Your task to perform on an android device: turn on priority inbox in the gmail app Image 0: 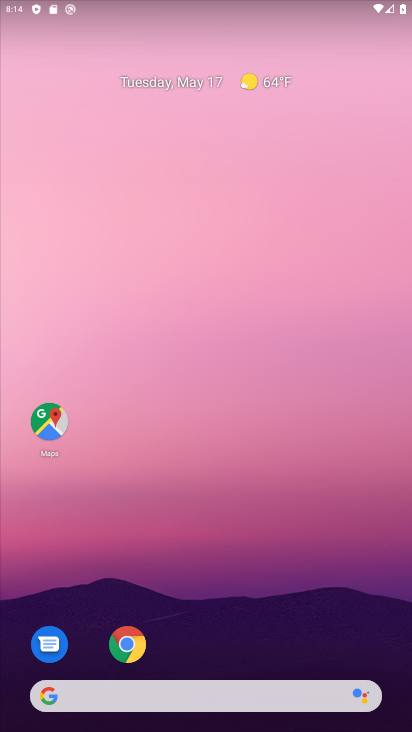
Step 0: drag from (227, 618) to (249, 74)
Your task to perform on an android device: turn on priority inbox in the gmail app Image 1: 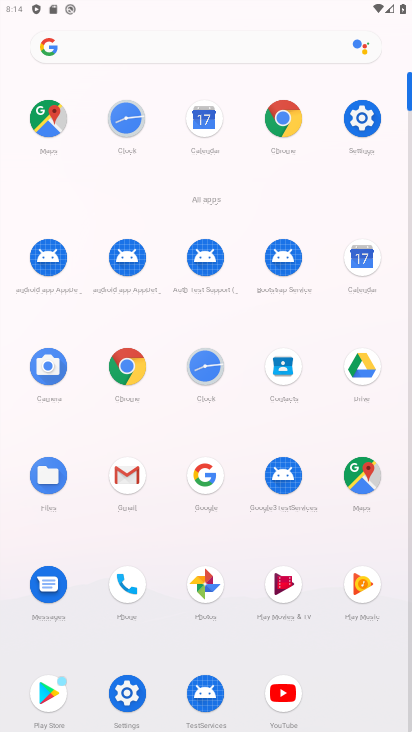
Step 1: click (130, 472)
Your task to perform on an android device: turn on priority inbox in the gmail app Image 2: 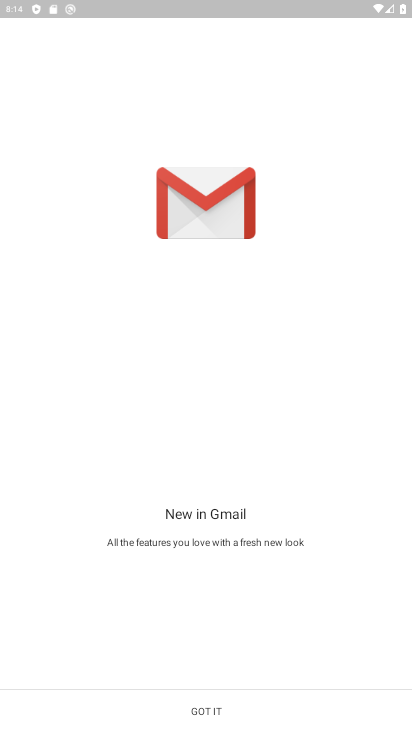
Step 2: click (215, 702)
Your task to perform on an android device: turn on priority inbox in the gmail app Image 3: 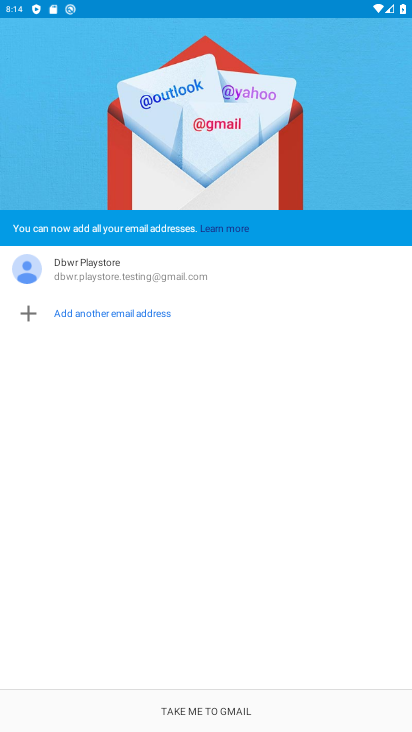
Step 3: click (215, 702)
Your task to perform on an android device: turn on priority inbox in the gmail app Image 4: 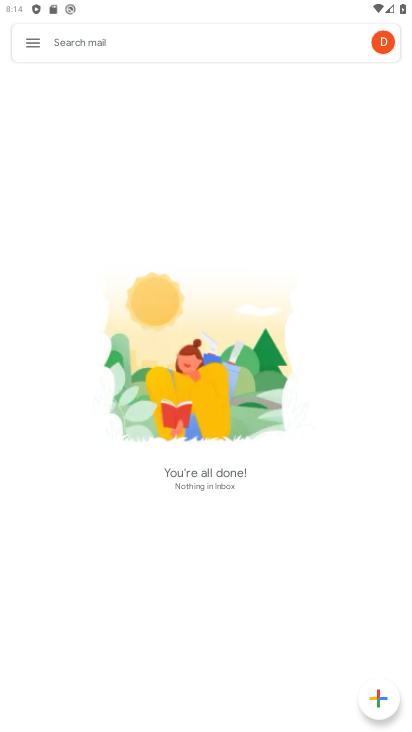
Step 4: click (29, 45)
Your task to perform on an android device: turn on priority inbox in the gmail app Image 5: 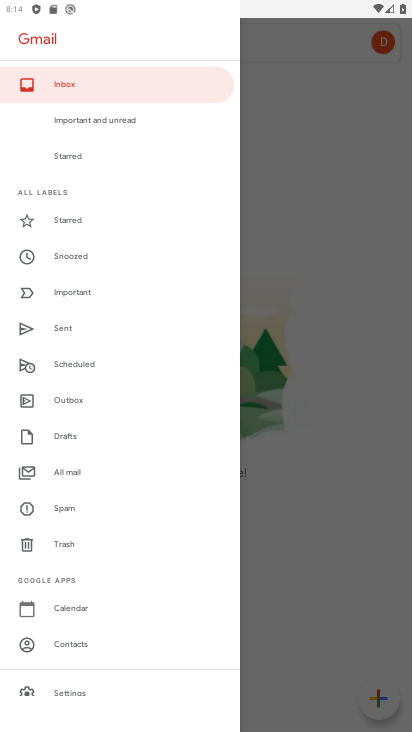
Step 5: click (58, 691)
Your task to perform on an android device: turn on priority inbox in the gmail app Image 6: 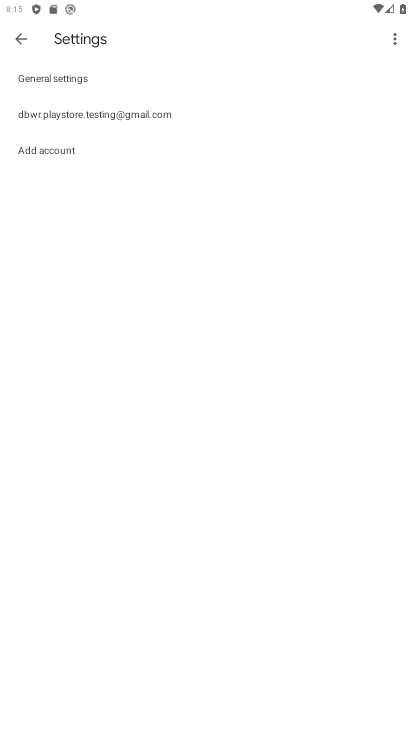
Step 6: click (140, 107)
Your task to perform on an android device: turn on priority inbox in the gmail app Image 7: 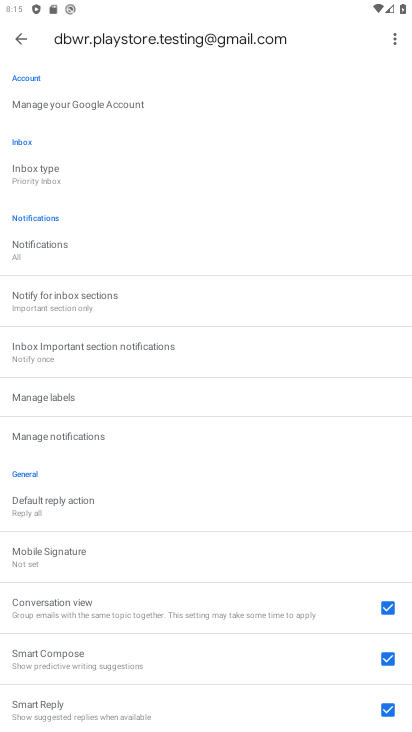
Step 7: click (31, 176)
Your task to perform on an android device: turn on priority inbox in the gmail app Image 8: 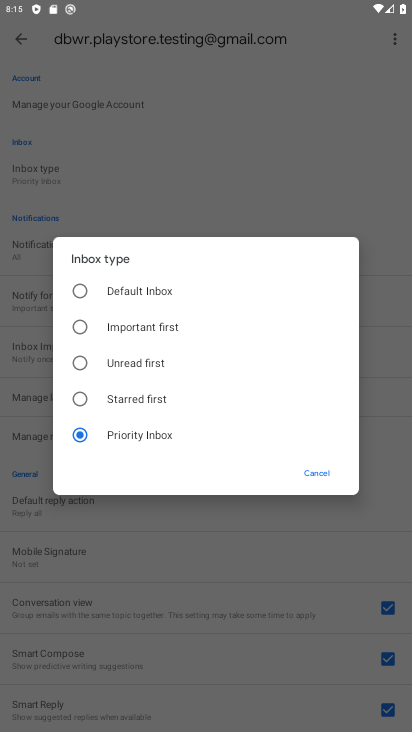
Step 8: click (143, 435)
Your task to perform on an android device: turn on priority inbox in the gmail app Image 9: 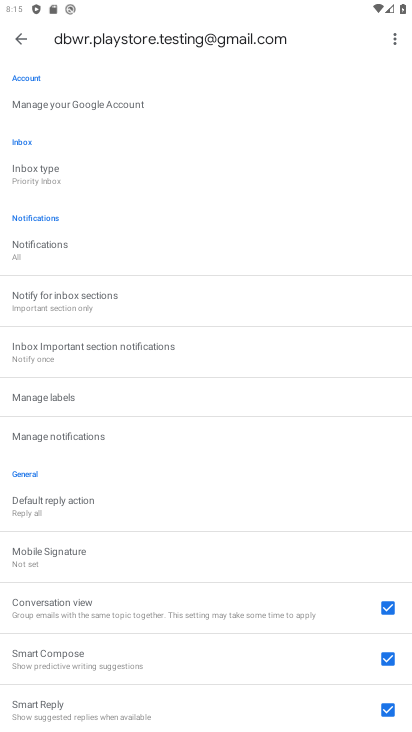
Step 9: task complete